Your task to perform on an android device: Open notification settings Image 0: 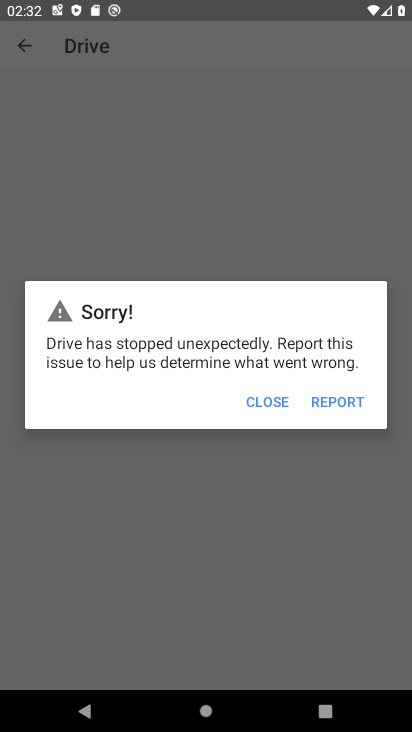
Step 0: press home button
Your task to perform on an android device: Open notification settings Image 1: 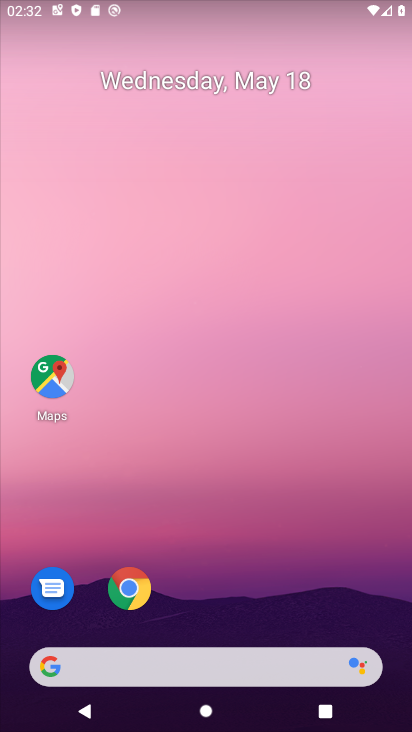
Step 1: drag from (17, 614) to (285, 146)
Your task to perform on an android device: Open notification settings Image 2: 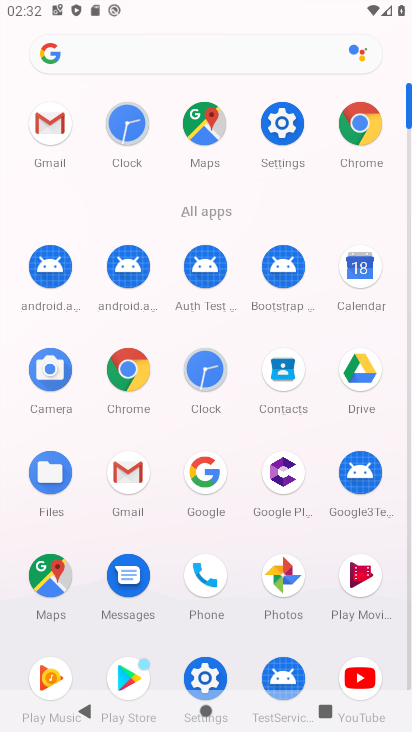
Step 2: click (276, 118)
Your task to perform on an android device: Open notification settings Image 3: 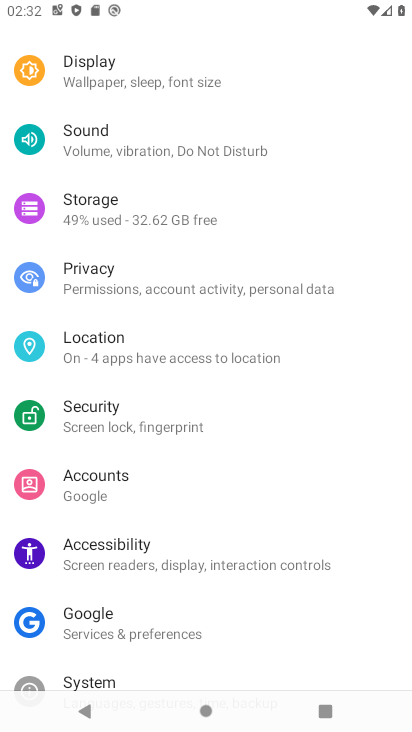
Step 3: drag from (95, 51) to (6, 653)
Your task to perform on an android device: Open notification settings Image 4: 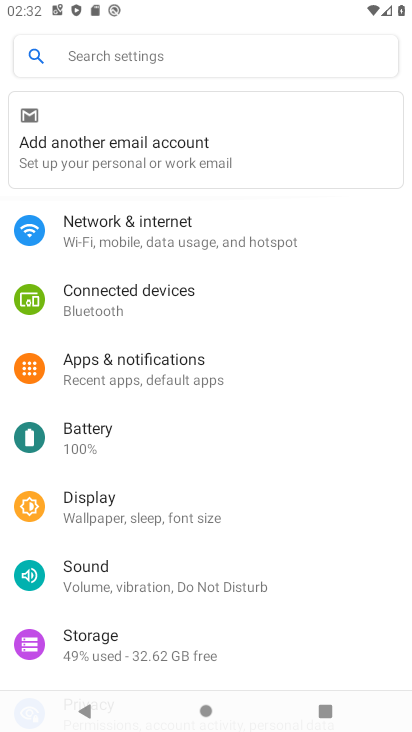
Step 4: click (161, 365)
Your task to perform on an android device: Open notification settings Image 5: 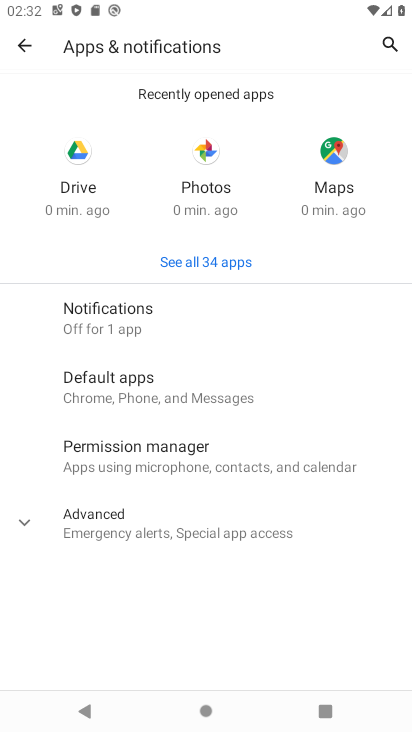
Step 5: click (138, 318)
Your task to perform on an android device: Open notification settings Image 6: 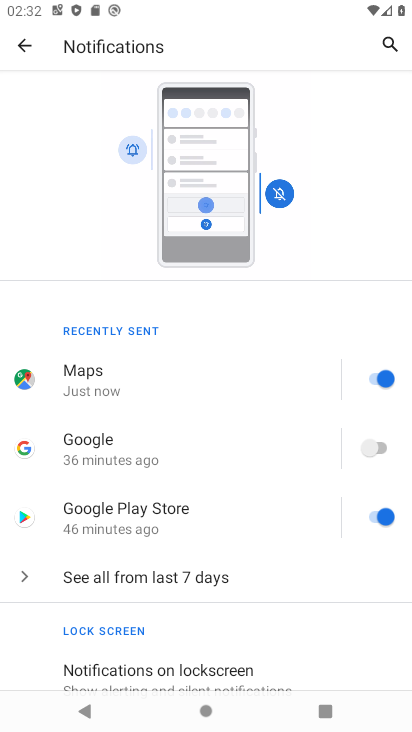
Step 6: task complete